Your task to perform on an android device: stop showing notifications on the lock screen Image 0: 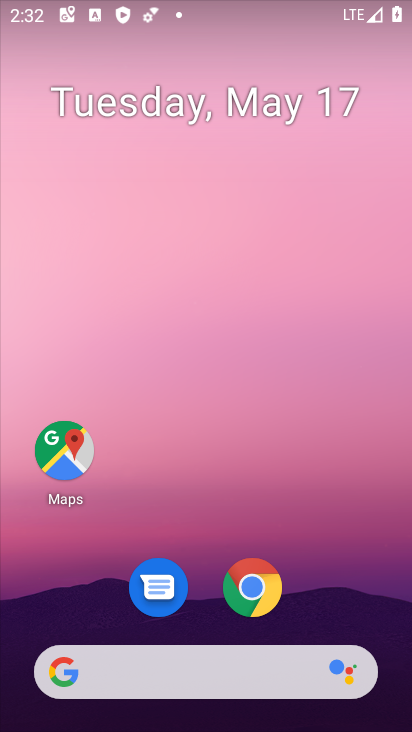
Step 0: drag from (187, 638) to (205, 27)
Your task to perform on an android device: stop showing notifications on the lock screen Image 1: 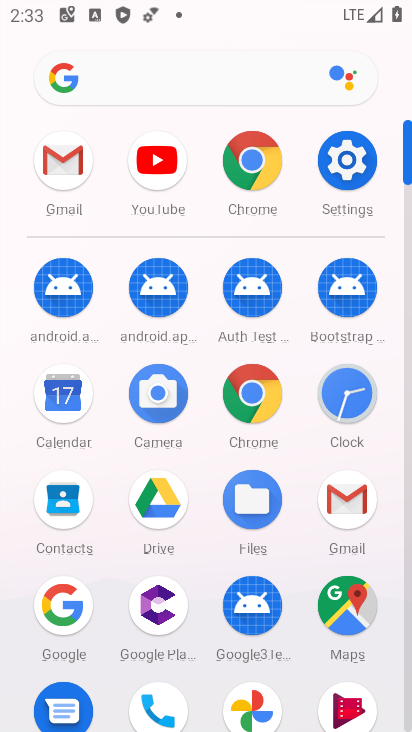
Step 1: click (332, 161)
Your task to perform on an android device: stop showing notifications on the lock screen Image 2: 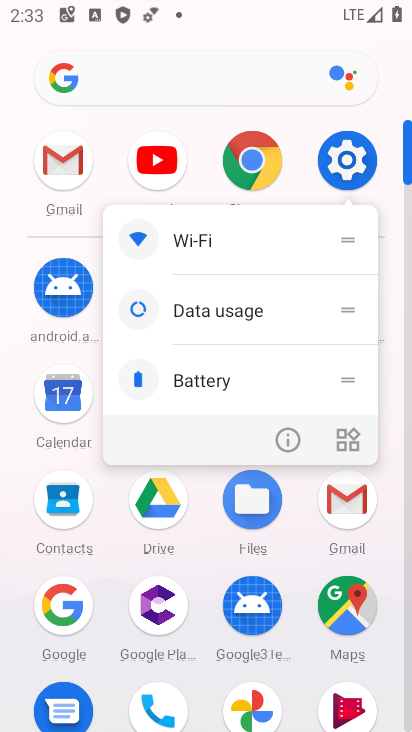
Step 2: click (288, 431)
Your task to perform on an android device: stop showing notifications on the lock screen Image 3: 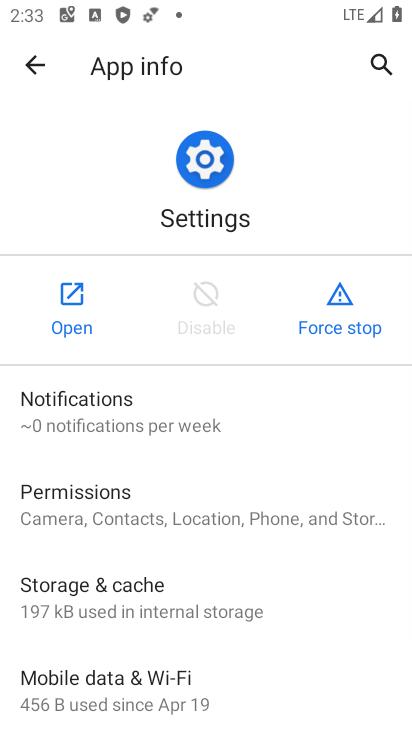
Step 3: click (86, 290)
Your task to perform on an android device: stop showing notifications on the lock screen Image 4: 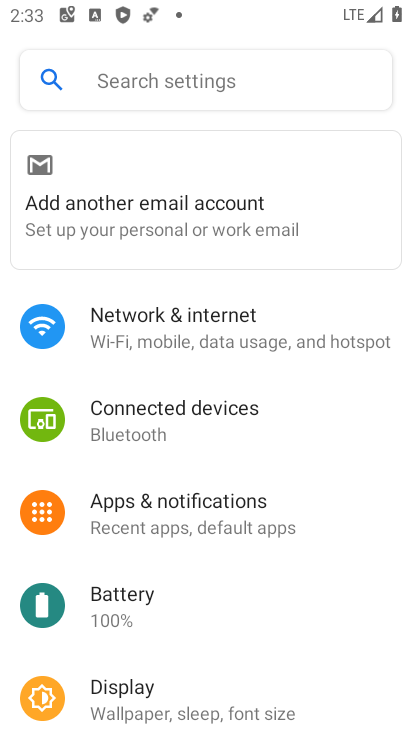
Step 4: drag from (203, 569) to (240, 343)
Your task to perform on an android device: stop showing notifications on the lock screen Image 5: 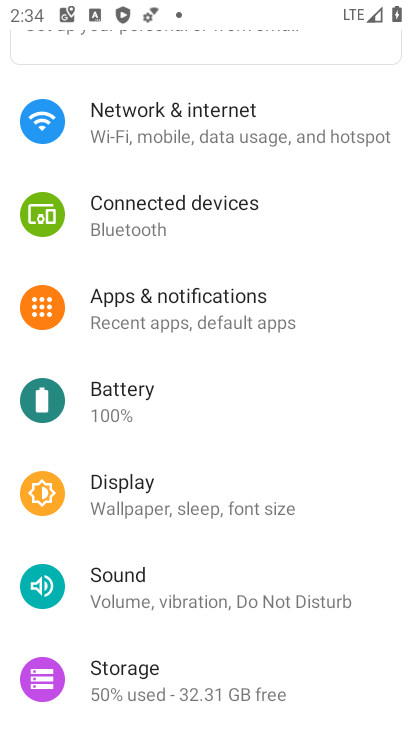
Step 5: click (199, 320)
Your task to perform on an android device: stop showing notifications on the lock screen Image 6: 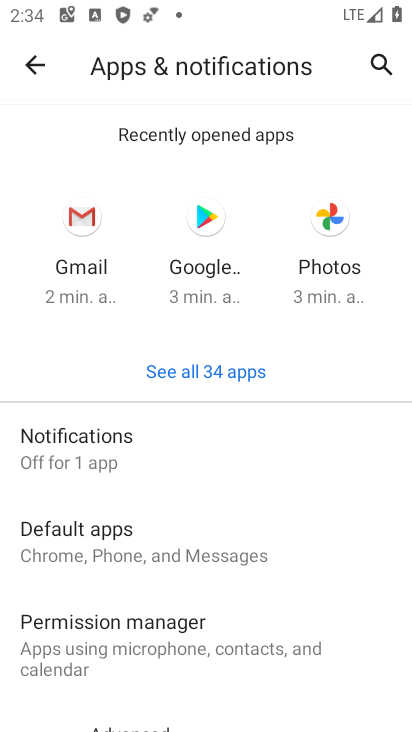
Step 6: click (148, 437)
Your task to perform on an android device: stop showing notifications on the lock screen Image 7: 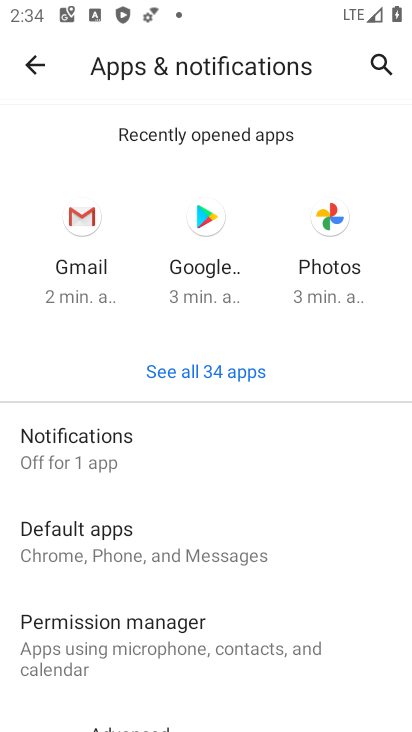
Step 7: click (148, 437)
Your task to perform on an android device: stop showing notifications on the lock screen Image 8: 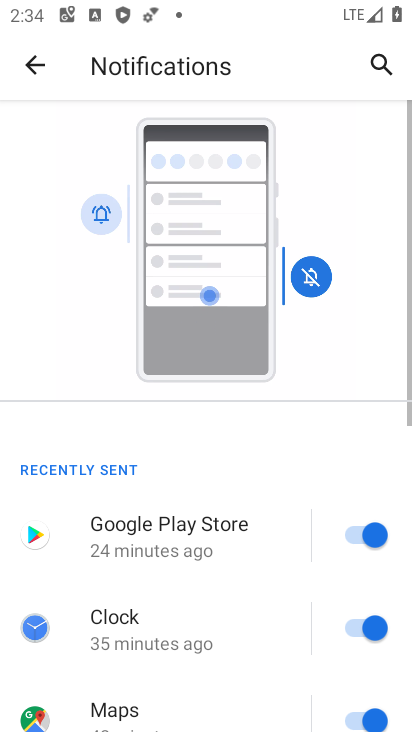
Step 8: drag from (199, 555) to (249, 62)
Your task to perform on an android device: stop showing notifications on the lock screen Image 9: 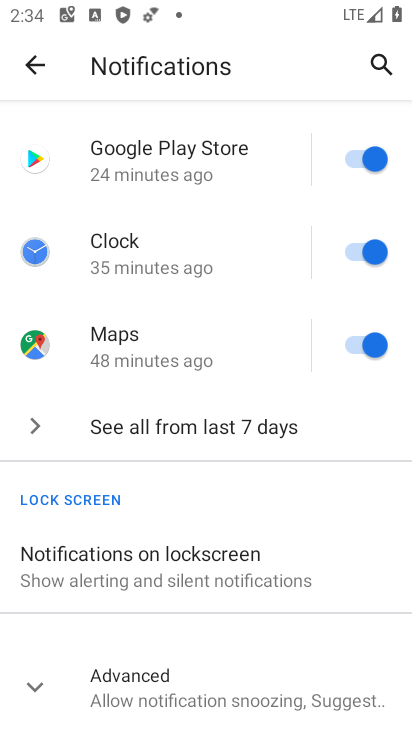
Step 9: click (216, 562)
Your task to perform on an android device: stop showing notifications on the lock screen Image 10: 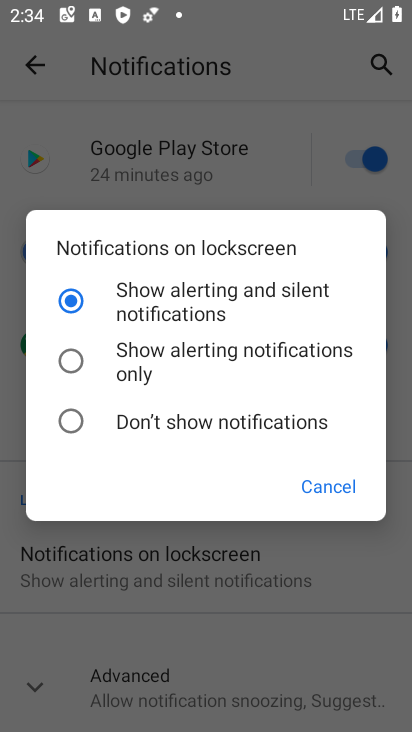
Step 10: click (182, 426)
Your task to perform on an android device: stop showing notifications on the lock screen Image 11: 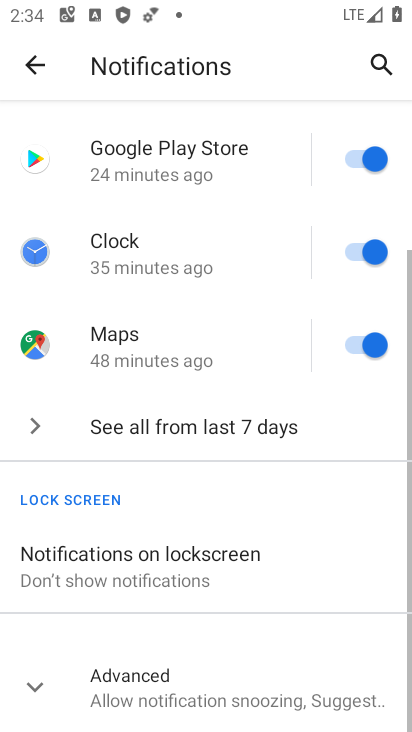
Step 11: task complete